Your task to perform on an android device: Open calendar and show me the second week of next month Image 0: 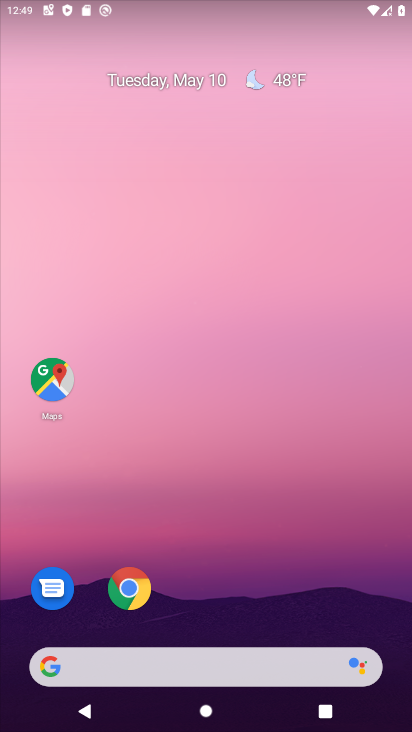
Step 0: drag from (225, 611) to (241, 418)
Your task to perform on an android device: Open calendar and show me the second week of next month Image 1: 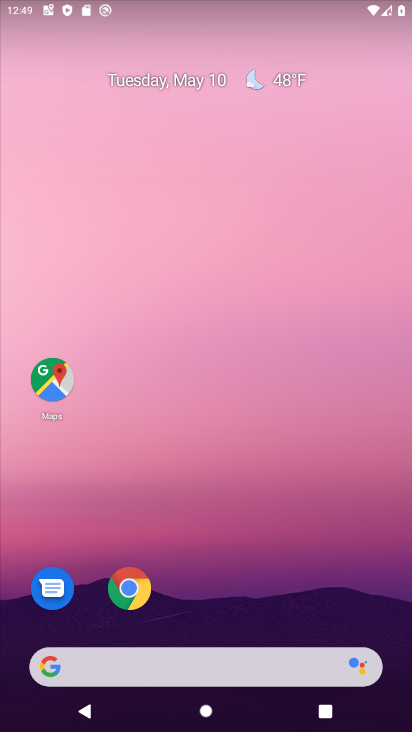
Step 1: drag from (239, 499) to (254, 370)
Your task to perform on an android device: Open calendar and show me the second week of next month Image 2: 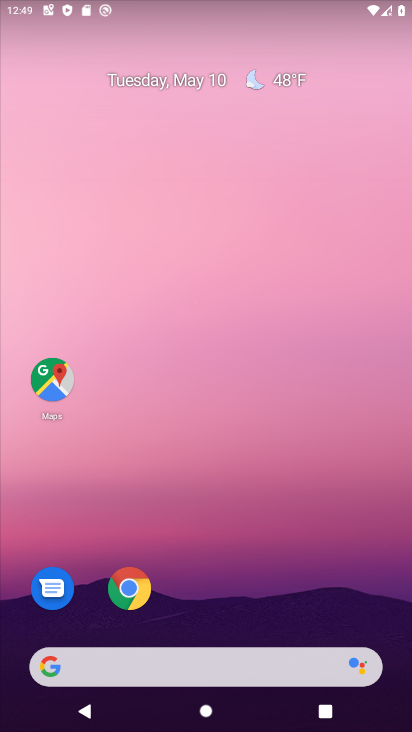
Step 2: click (222, 543)
Your task to perform on an android device: Open calendar and show me the second week of next month Image 3: 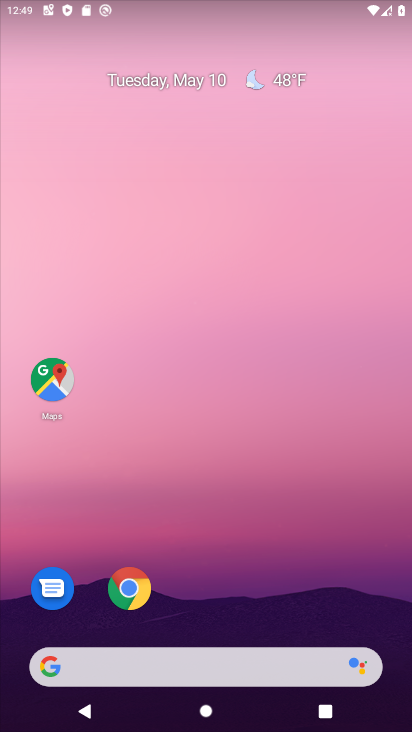
Step 3: drag from (274, 661) to (307, 24)
Your task to perform on an android device: Open calendar and show me the second week of next month Image 4: 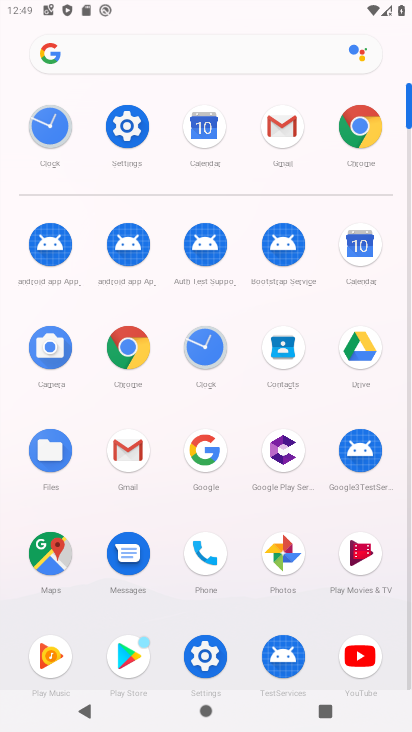
Step 4: click (346, 248)
Your task to perform on an android device: Open calendar and show me the second week of next month Image 5: 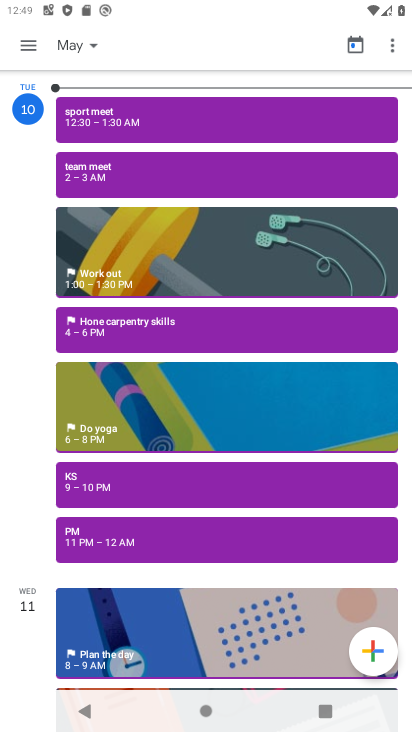
Step 5: click (21, 51)
Your task to perform on an android device: Open calendar and show me the second week of next month Image 6: 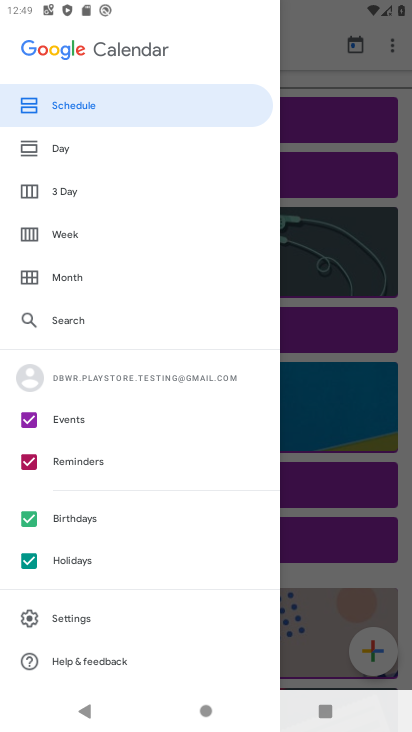
Step 6: click (114, 277)
Your task to perform on an android device: Open calendar and show me the second week of next month Image 7: 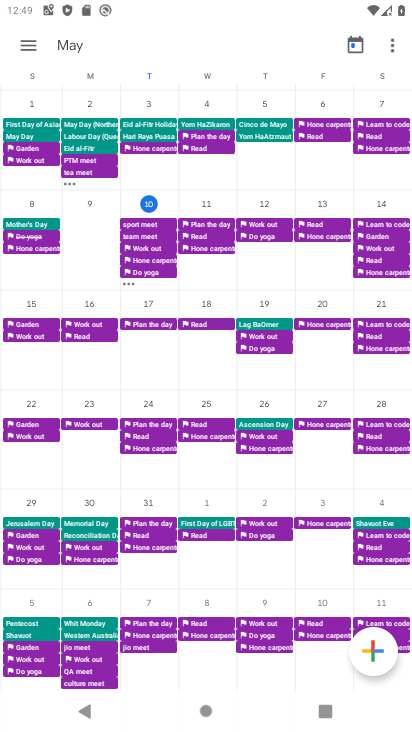
Step 7: task complete